Your task to perform on an android device: Play the last video I watched on Youtube Image 0: 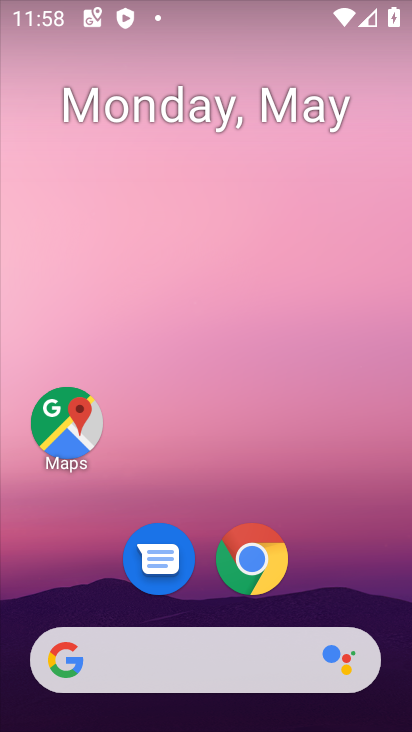
Step 0: drag from (341, 575) to (336, 73)
Your task to perform on an android device: Play the last video I watched on Youtube Image 1: 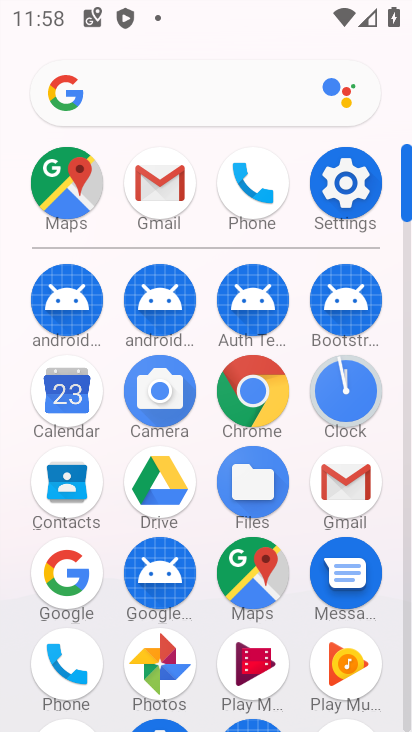
Step 1: click (406, 731)
Your task to perform on an android device: Play the last video I watched on Youtube Image 2: 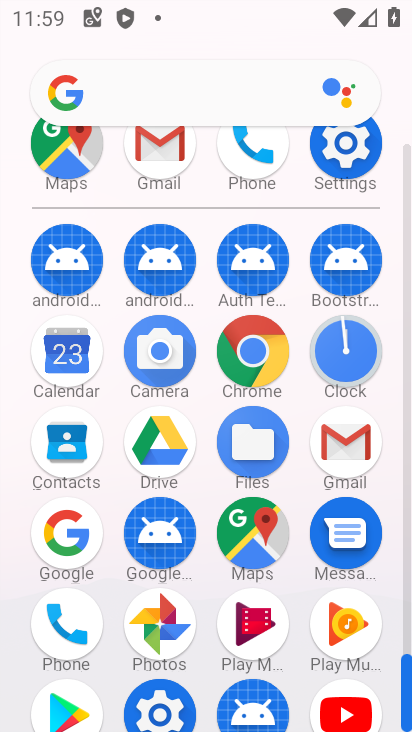
Step 2: click (365, 715)
Your task to perform on an android device: Play the last video I watched on Youtube Image 3: 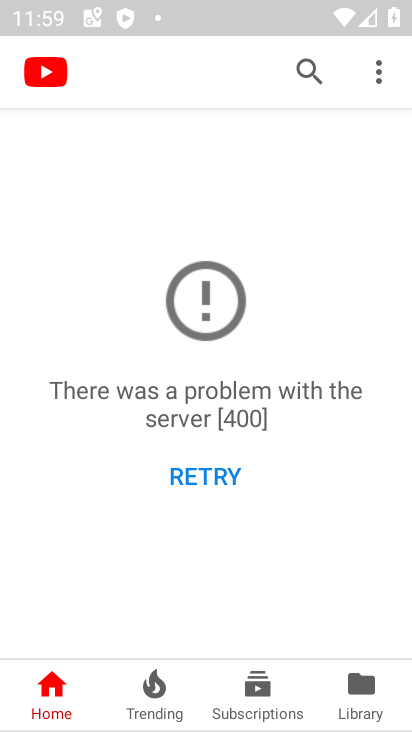
Step 3: click (374, 692)
Your task to perform on an android device: Play the last video I watched on Youtube Image 4: 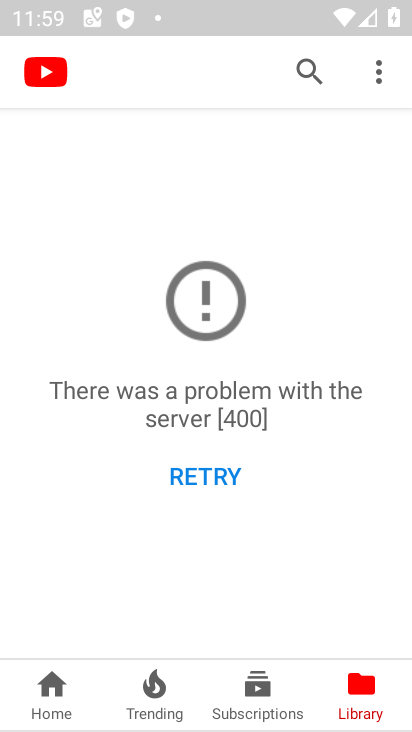
Step 4: task complete